Your task to perform on an android device: see creations saved in the google photos Image 0: 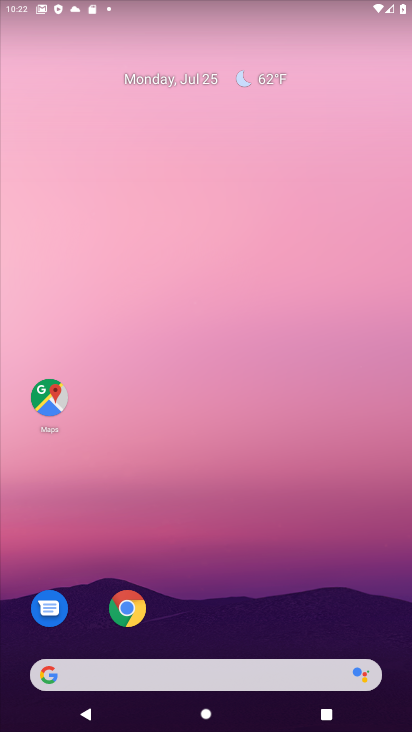
Step 0: drag from (234, 413) to (60, 26)
Your task to perform on an android device: see creations saved in the google photos Image 1: 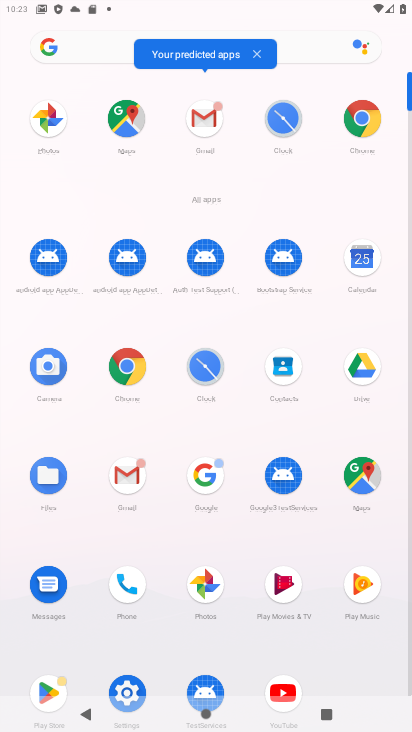
Step 1: click (210, 573)
Your task to perform on an android device: see creations saved in the google photos Image 2: 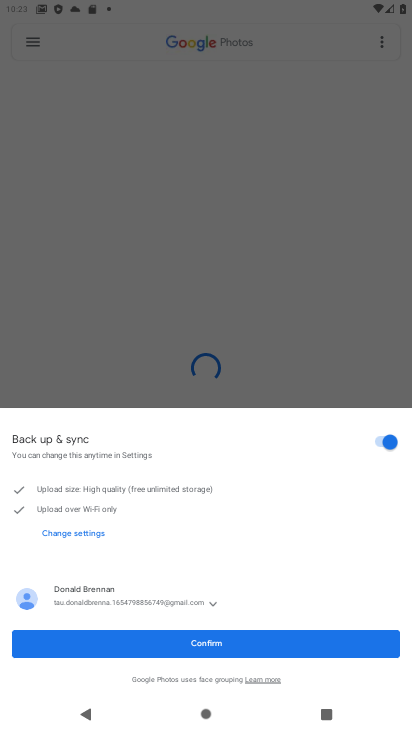
Step 2: click (203, 644)
Your task to perform on an android device: see creations saved in the google photos Image 3: 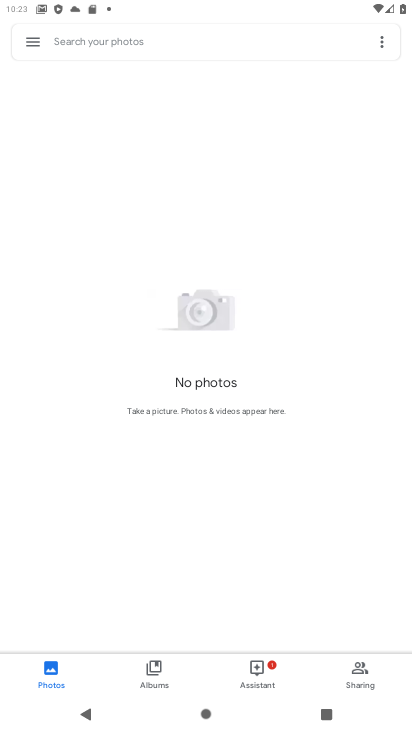
Step 3: click (119, 39)
Your task to perform on an android device: see creations saved in the google photos Image 4: 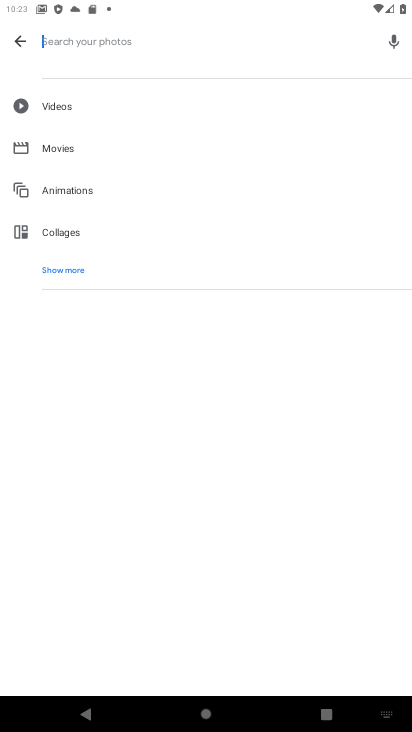
Step 4: type "creations"
Your task to perform on an android device: see creations saved in the google photos Image 5: 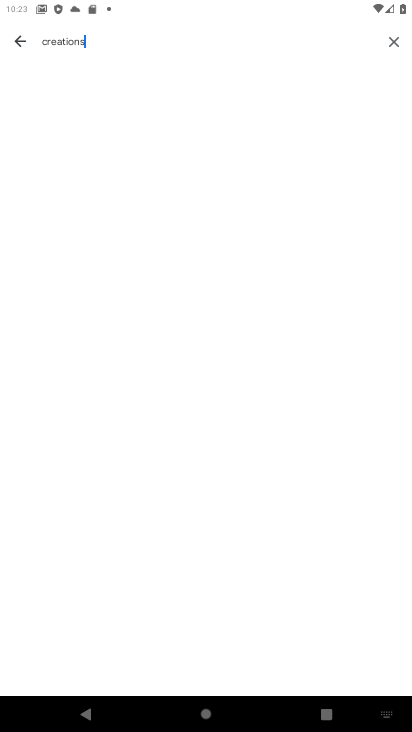
Step 5: click (157, 137)
Your task to perform on an android device: see creations saved in the google photos Image 6: 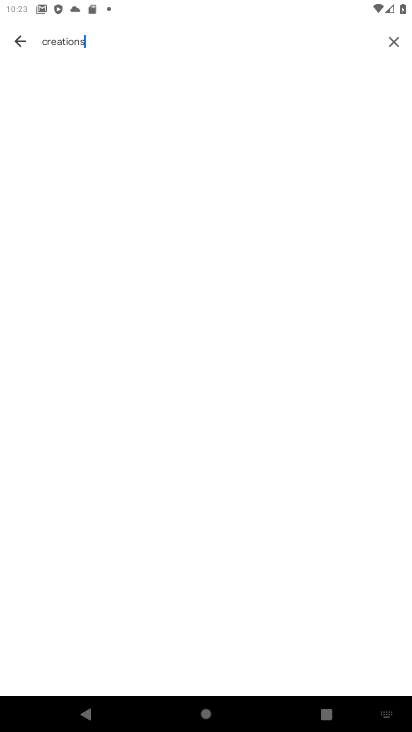
Step 6: task complete